Your task to perform on an android device: turn on improve location accuracy Image 0: 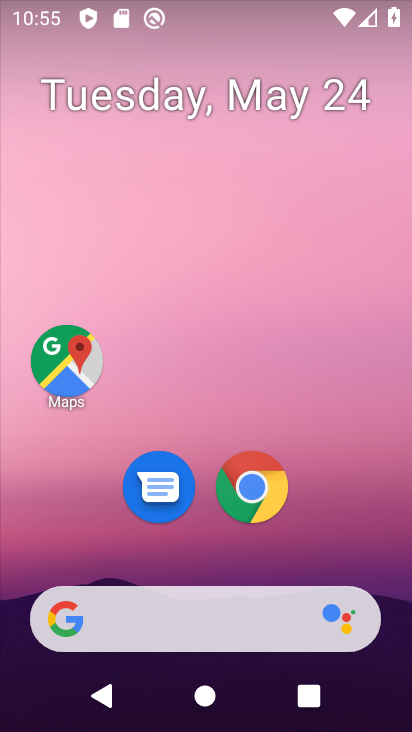
Step 0: drag from (180, 553) to (260, 32)
Your task to perform on an android device: turn on improve location accuracy Image 1: 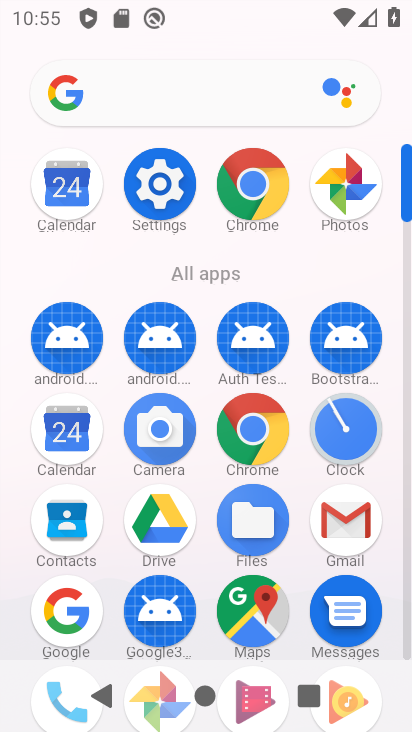
Step 1: click (174, 179)
Your task to perform on an android device: turn on improve location accuracy Image 2: 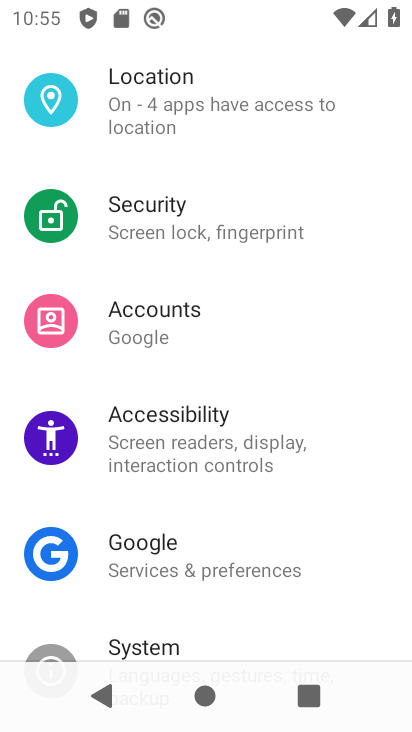
Step 2: click (190, 92)
Your task to perform on an android device: turn on improve location accuracy Image 3: 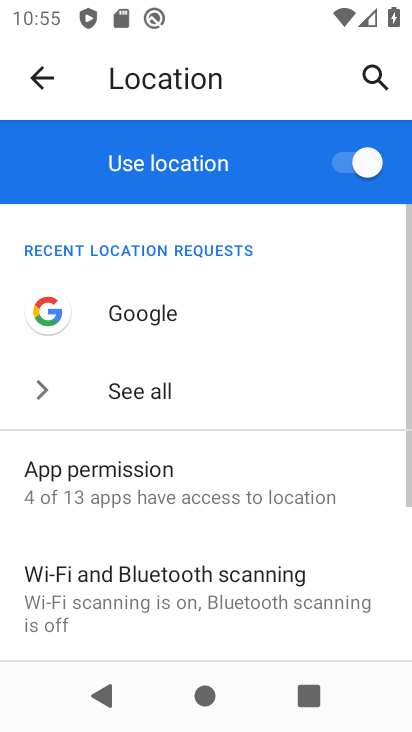
Step 3: drag from (162, 577) to (229, 234)
Your task to perform on an android device: turn on improve location accuracy Image 4: 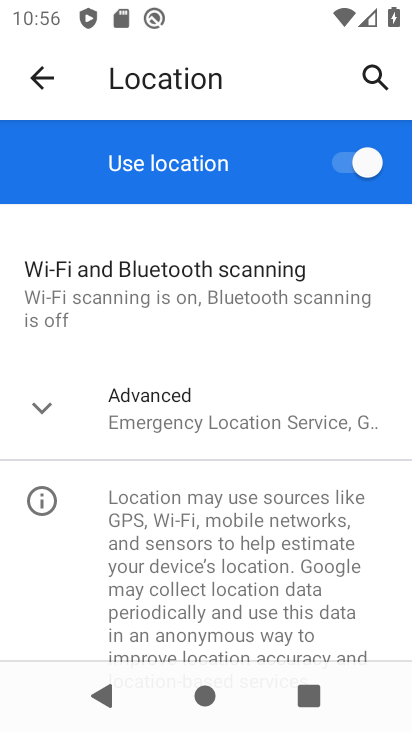
Step 4: click (204, 404)
Your task to perform on an android device: turn on improve location accuracy Image 5: 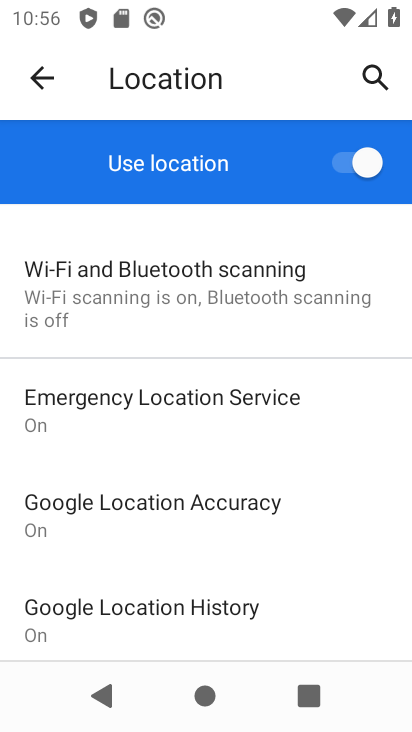
Step 5: click (223, 501)
Your task to perform on an android device: turn on improve location accuracy Image 6: 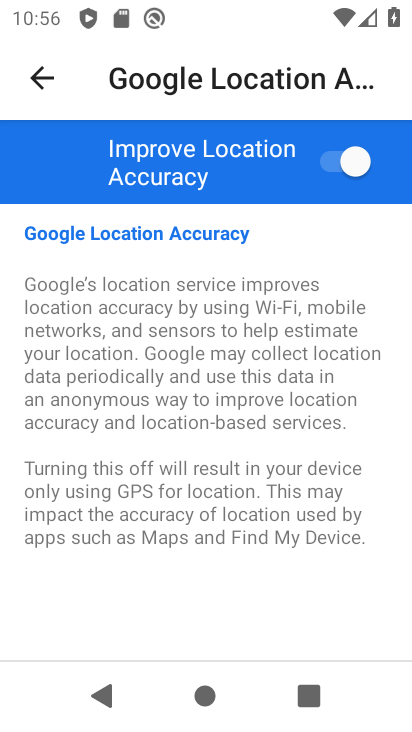
Step 6: task complete